Your task to perform on an android device: clear history in the chrome app Image 0: 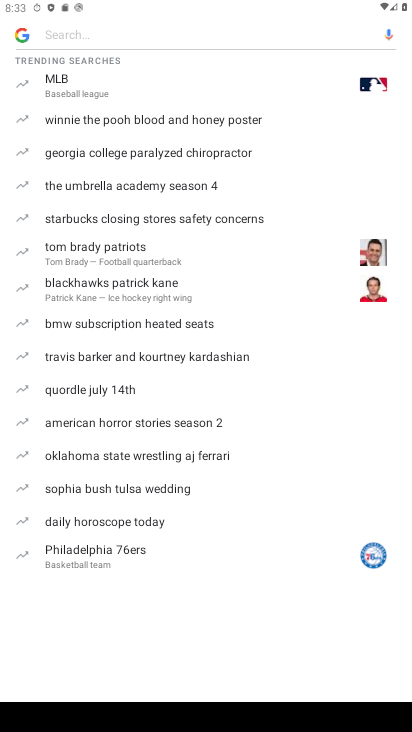
Step 0: press back button
Your task to perform on an android device: clear history in the chrome app Image 1: 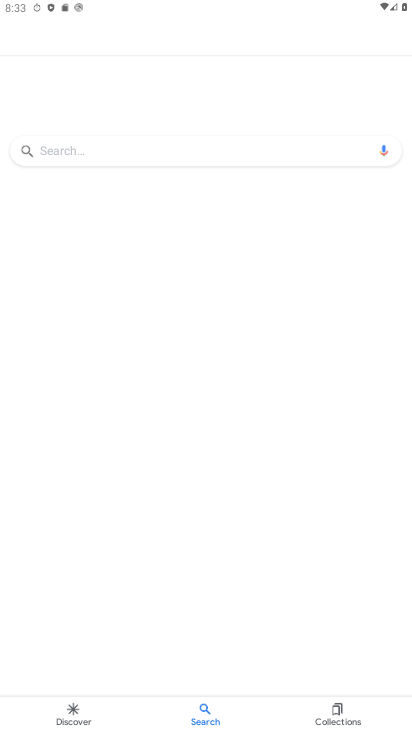
Step 1: press back button
Your task to perform on an android device: clear history in the chrome app Image 2: 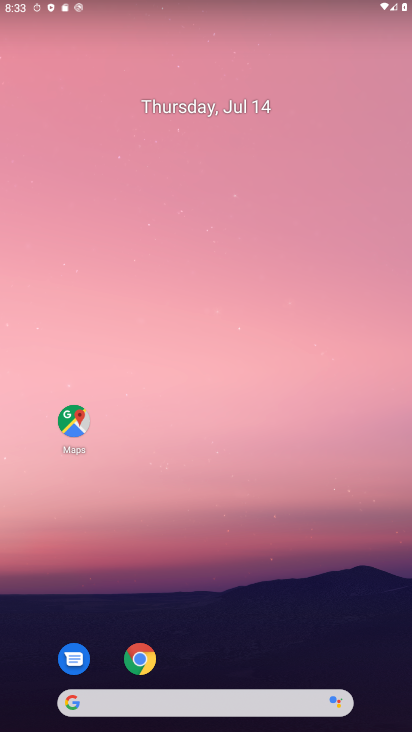
Step 2: drag from (238, 661) to (71, 162)
Your task to perform on an android device: clear history in the chrome app Image 3: 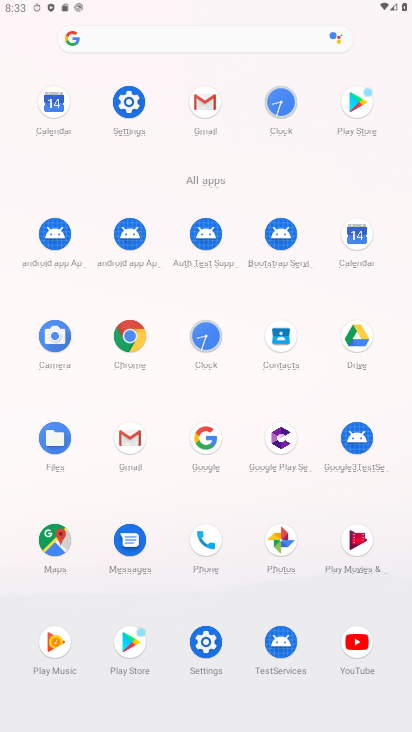
Step 3: click (149, 335)
Your task to perform on an android device: clear history in the chrome app Image 4: 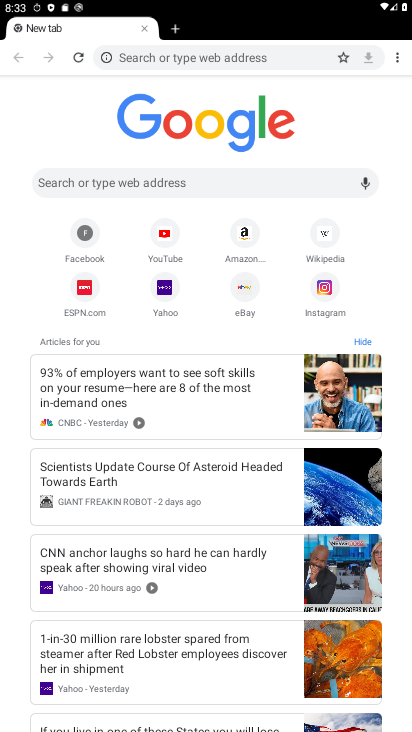
Step 4: click (397, 57)
Your task to perform on an android device: clear history in the chrome app Image 5: 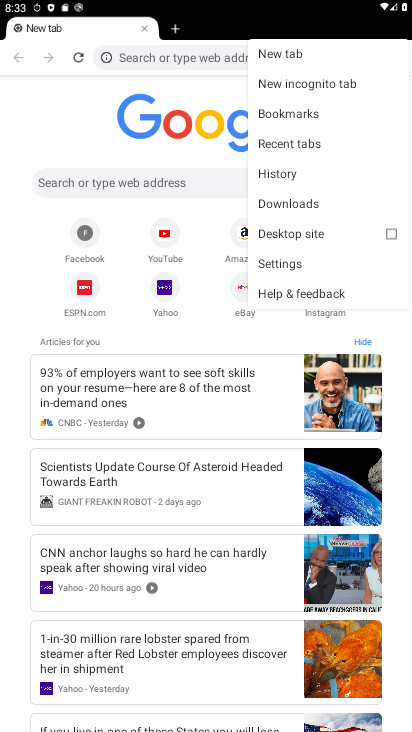
Step 5: click (277, 170)
Your task to perform on an android device: clear history in the chrome app Image 6: 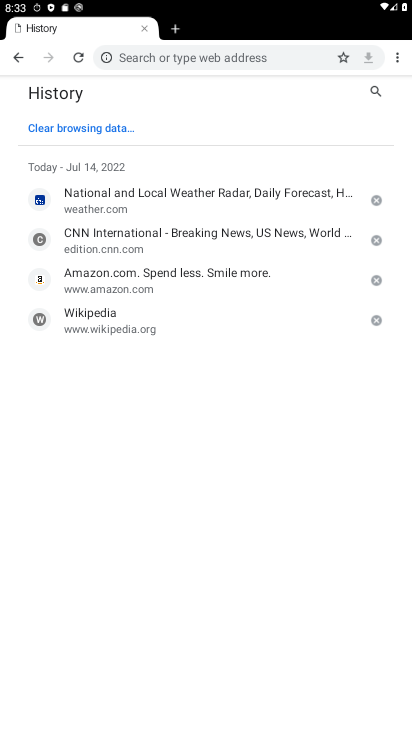
Step 6: click (71, 120)
Your task to perform on an android device: clear history in the chrome app Image 7: 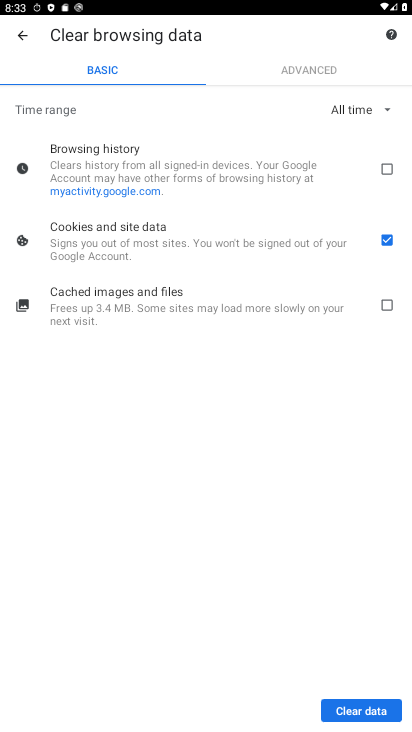
Step 7: click (382, 705)
Your task to perform on an android device: clear history in the chrome app Image 8: 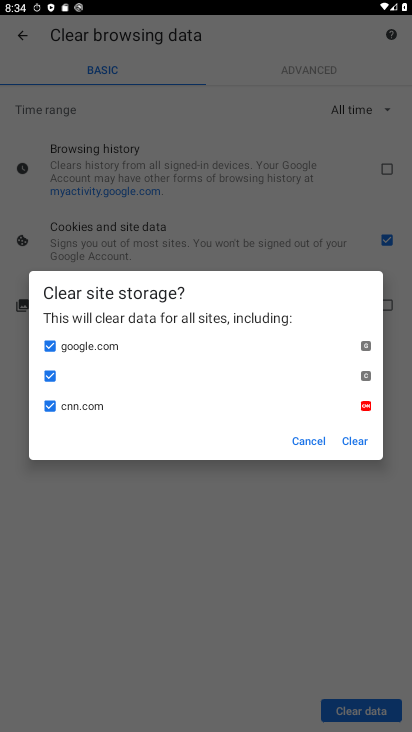
Step 8: click (303, 440)
Your task to perform on an android device: clear history in the chrome app Image 9: 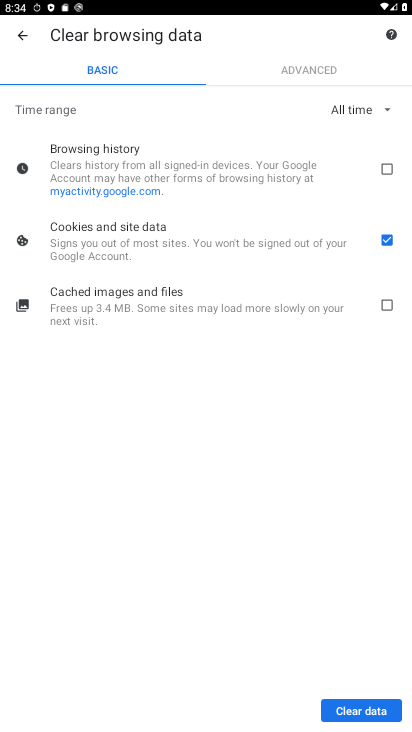
Step 9: click (381, 312)
Your task to perform on an android device: clear history in the chrome app Image 10: 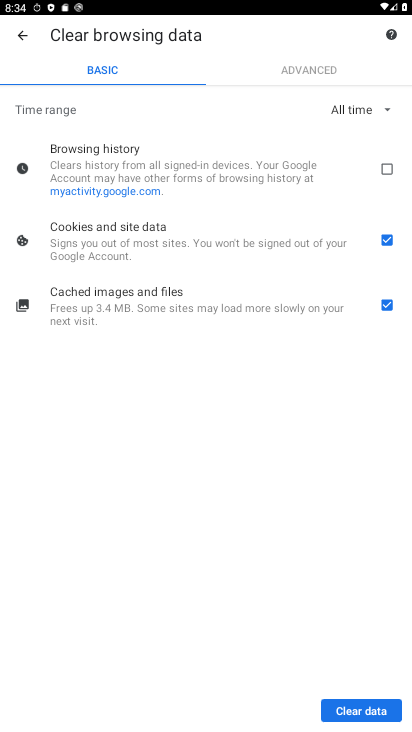
Step 10: click (379, 166)
Your task to perform on an android device: clear history in the chrome app Image 11: 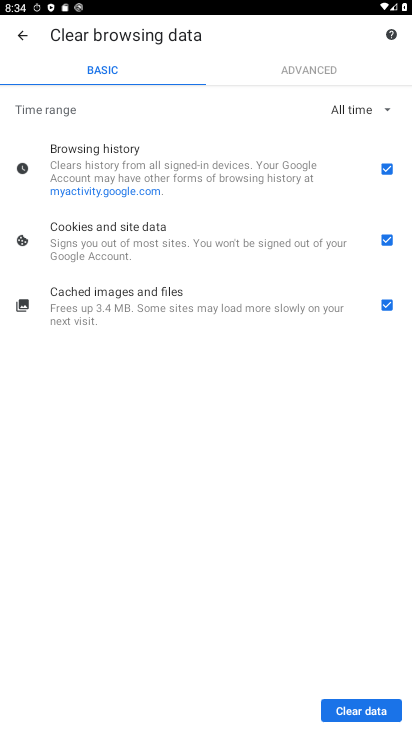
Step 11: click (343, 716)
Your task to perform on an android device: clear history in the chrome app Image 12: 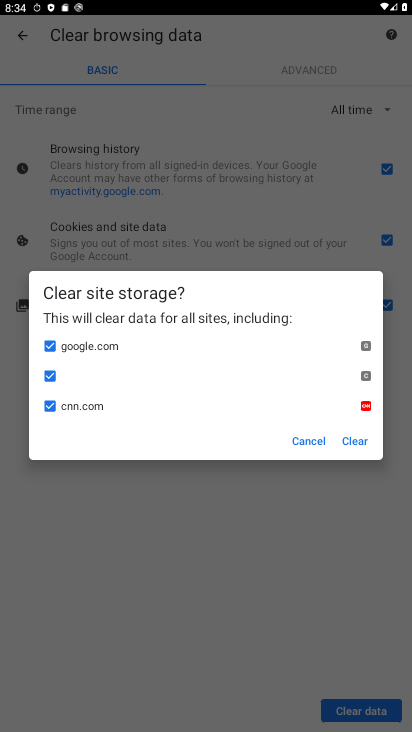
Step 12: click (354, 444)
Your task to perform on an android device: clear history in the chrome app Image 13: 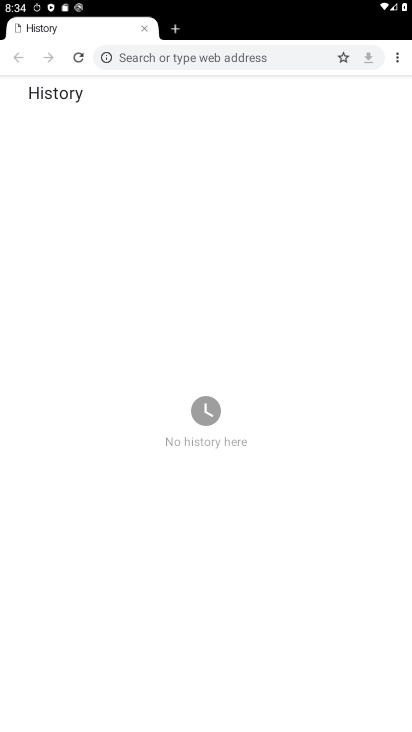
Step 13: task complete